Your task to perform on an android device: Go to Google maps Image 0: 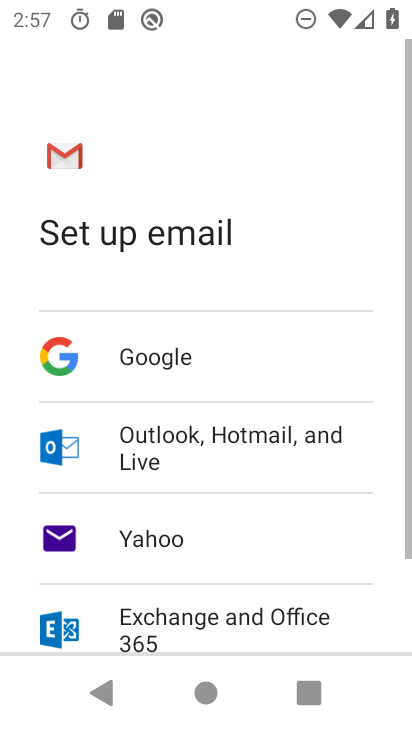
Step 0: press home button
Your task to perform on an android device: Go to Google maps Image 1: 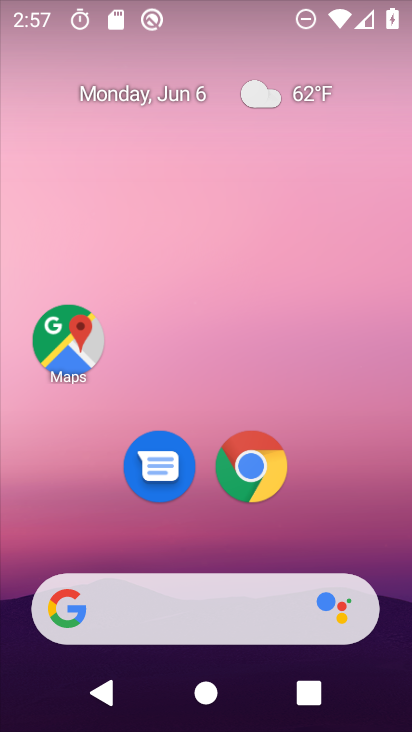
Step 1: drag from (200, 549) to (203, 13)
Your task to perform on an android device: Go to Google maps Image 2: 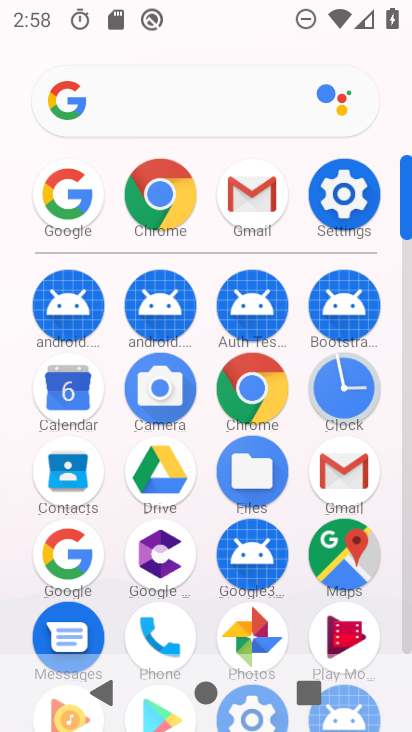
Step 2: click (365, 571)
Your task to perform on an android device: Go to Google maps Image 3: 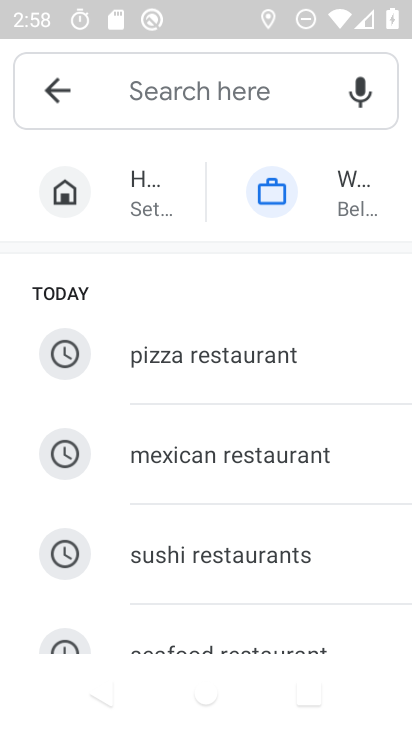
Step 3: task complete